Your task to perform on an android device: toggle improve location accuracy Image 0: 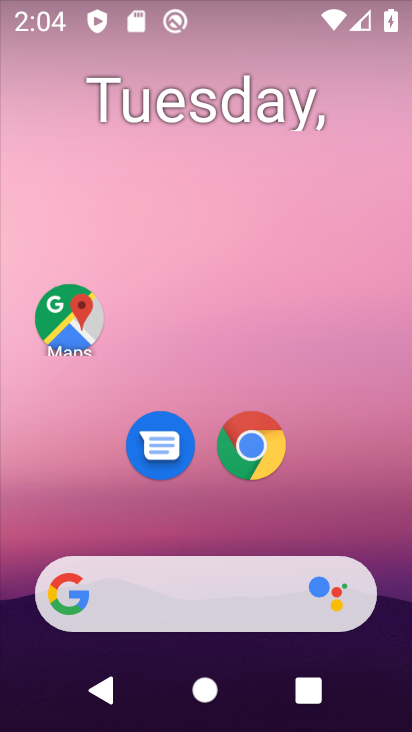
Step 0: drag from (176, 498) to (186, 52)
Your task to perform on an android device: toggle improve location accuracy Image 1: 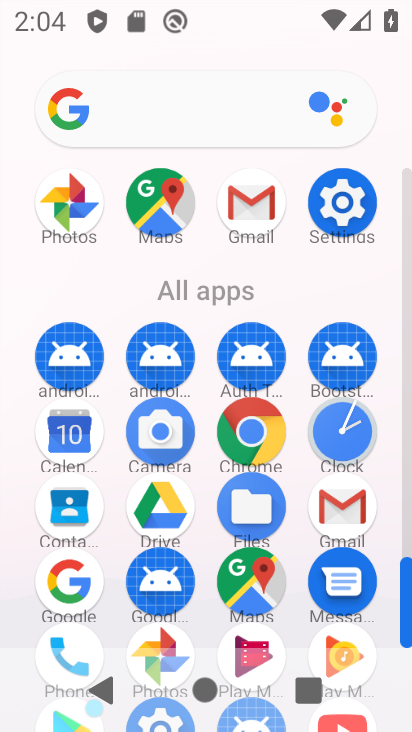
Step 1: click (364, 186)
Your task to perform on an android device: toggle improve location accuracy Image 2: 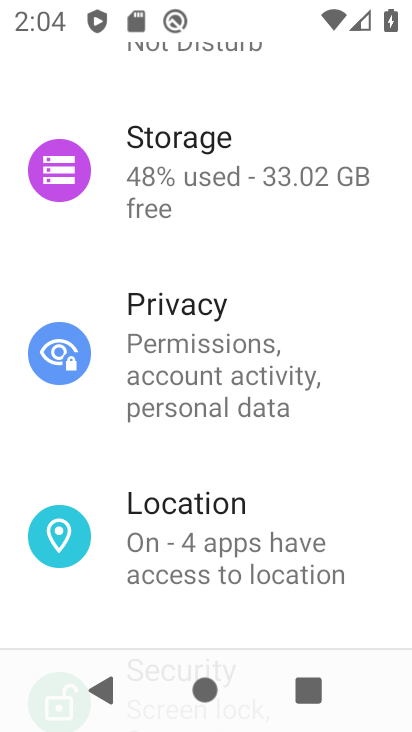
Step 2: click (172, 533)
Your task to perform on an android device: toggle improve location accuracy Image 3: 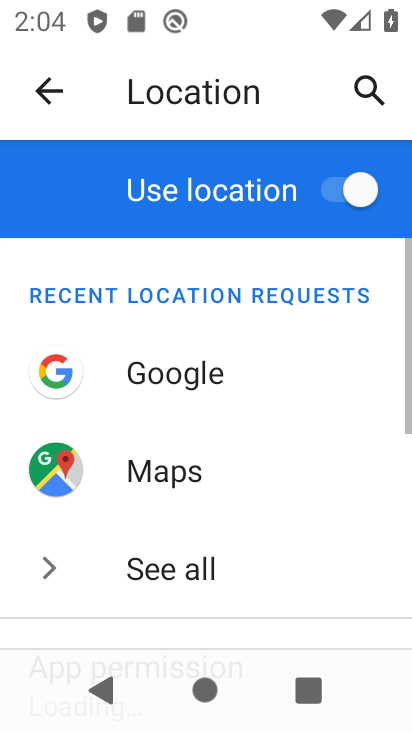
Step 3: drag from (218, 335) to (254, 71)
Your task to perform on an android device: toggle improve location accuracy Image 4: 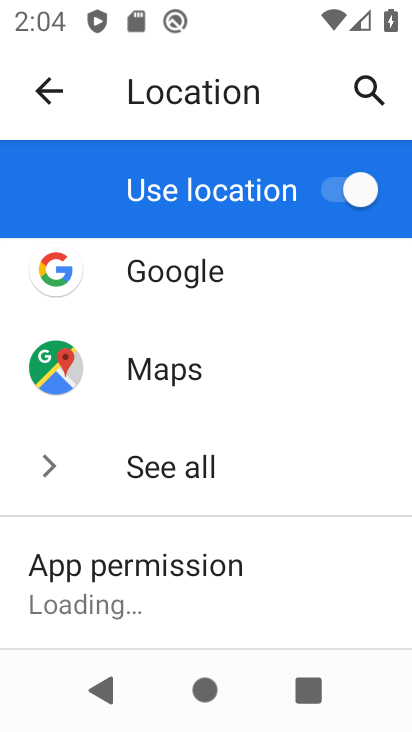
Step 4: drag from (164, 606) to (120, 229)
Your task to perform on an android device: toggle improve location accuracy Image 5: 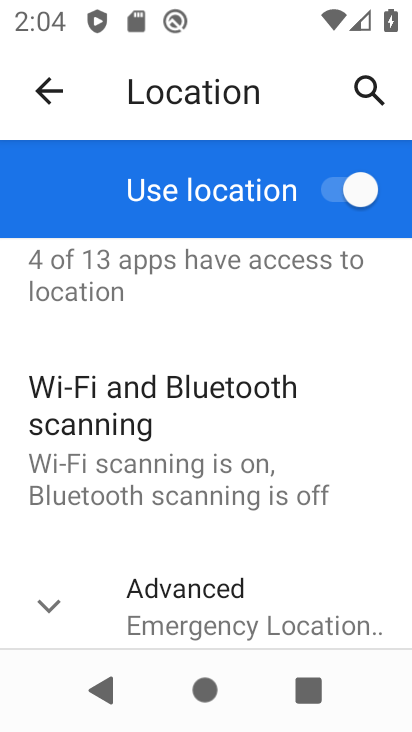
Step 5: click (96, 579)
Your task to perform on an android device: toggle improve location accuracy Image 6: 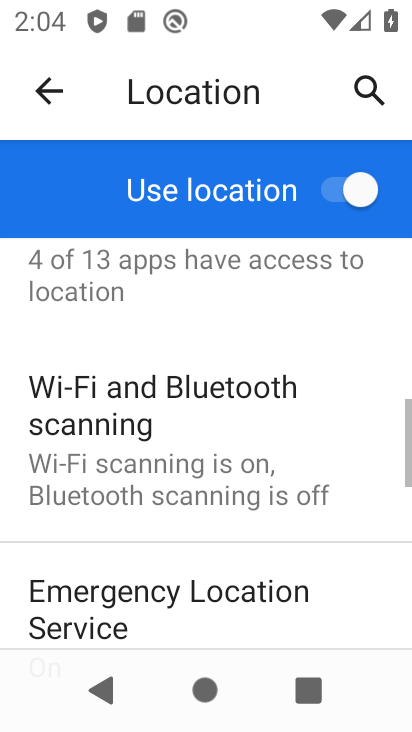
Step 6: drag from (96, 579) to (141, 167)
Your task to perform on an android device: toggle improve location accuracy Image 7: 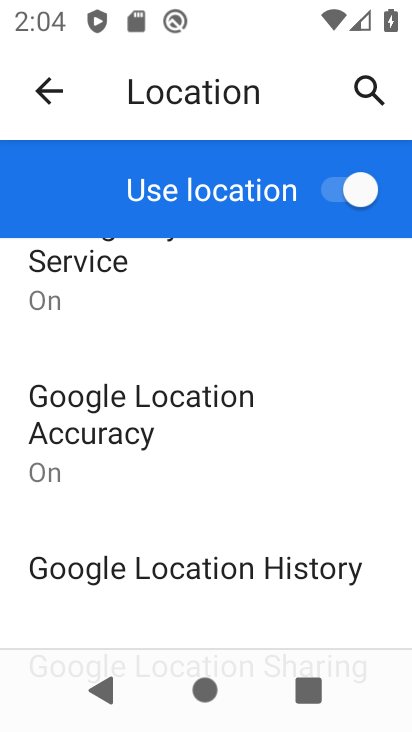
Step 7: click (141, 444)
Your task to perform on an android device: toggle improve location accuracy Image 8: 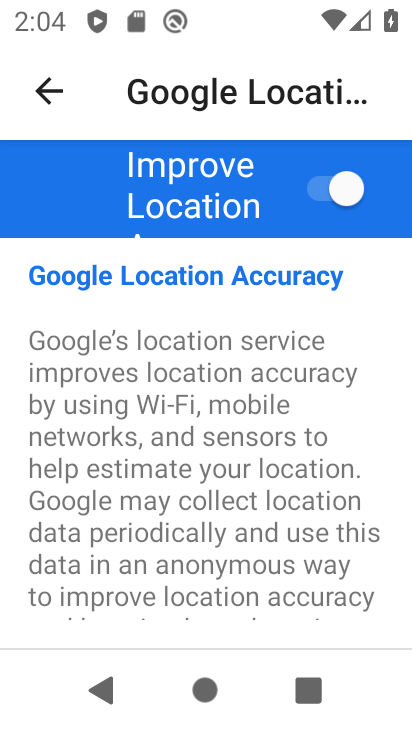
Step 8: click (328, 191)
Your task to perform on an android device: toggle improve location accuracy Image 9: 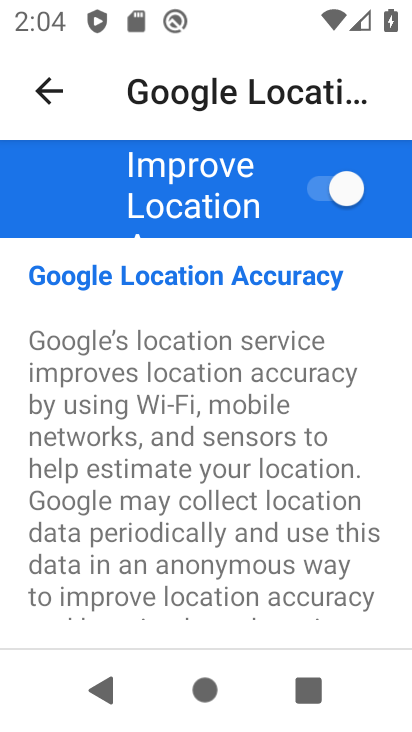
Step 9: click (328, 191)
Your task to perform on an android device: toggle improve location accuracy Image 10: 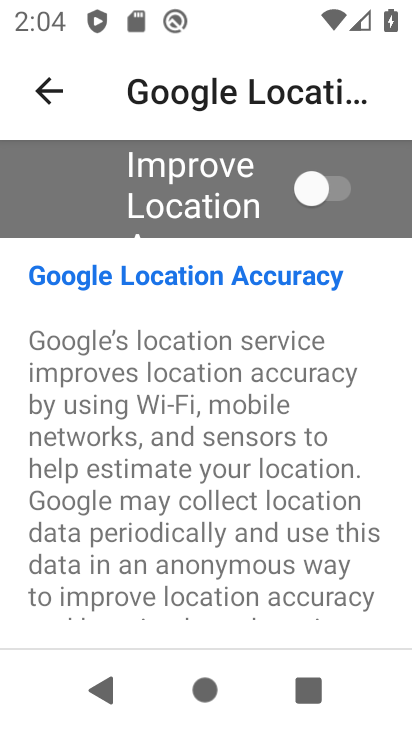
Step 10: click (328, 191)
Your task to perform on an android device: toggle improve location accuracy Image 11: 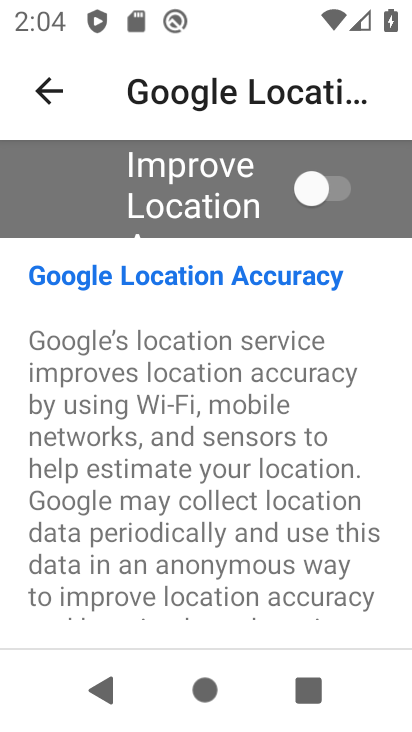
Step 11: click (328, 191)
Your task to perform on an android device: toggle improve location accuracy Image 12: 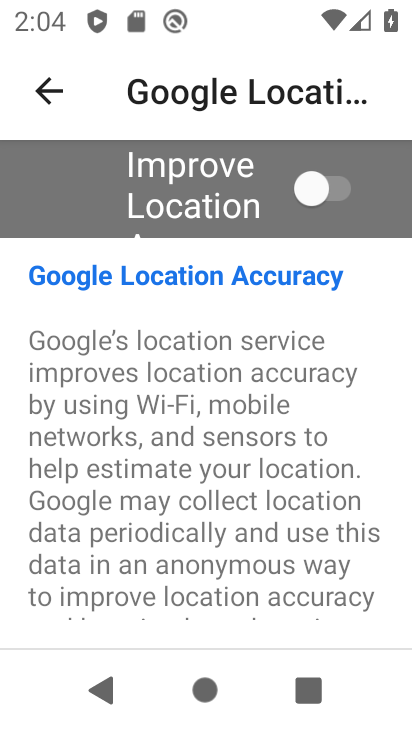
Step 12: click (328, 191)
Your task to perform on an android device: toggle improve location accuracy Image 13: 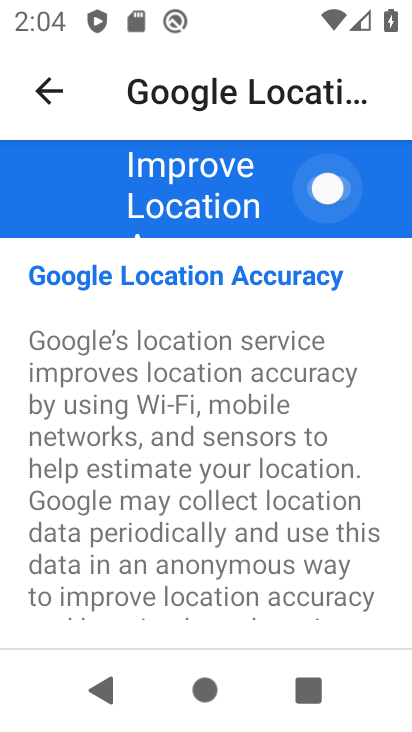
Step 13: click (328, 191)
Your task to perform on an android device: toggle improve location accuracy Image 14: 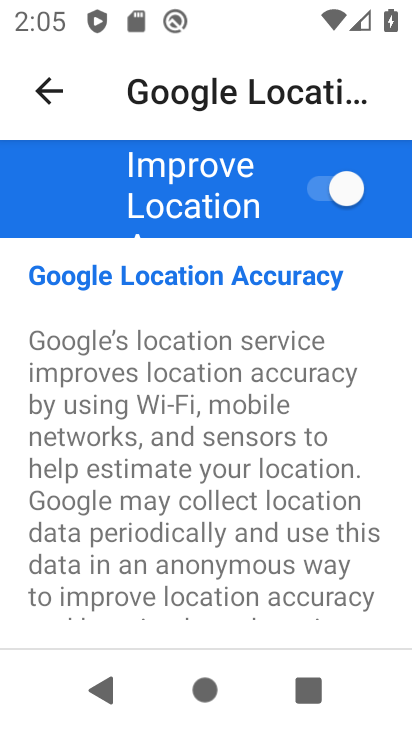
Step 14: task complete